Your task to perform on an android device: Open the map Image 0: 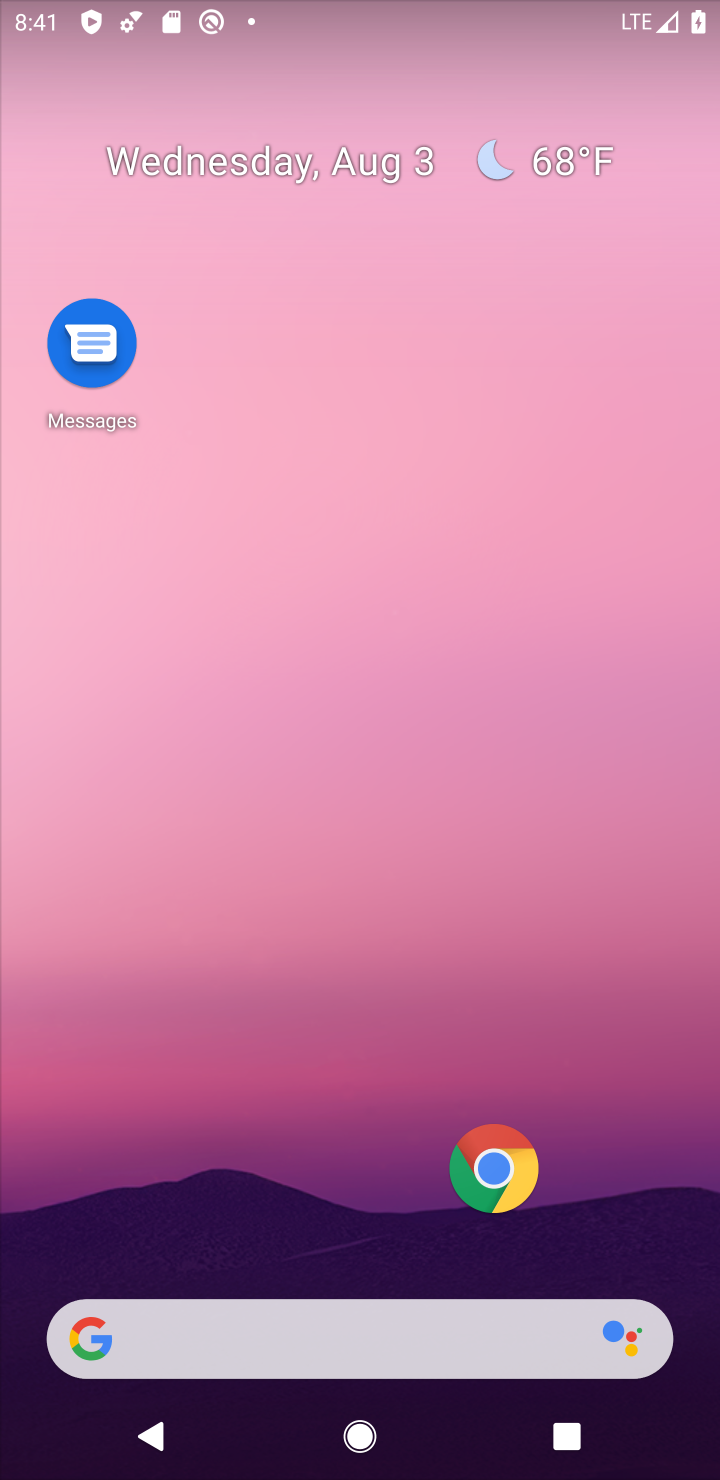
Step 0: drag from (387, 1231) to (606, 0)
Your task to perform on an android device: Open the map Image 1: 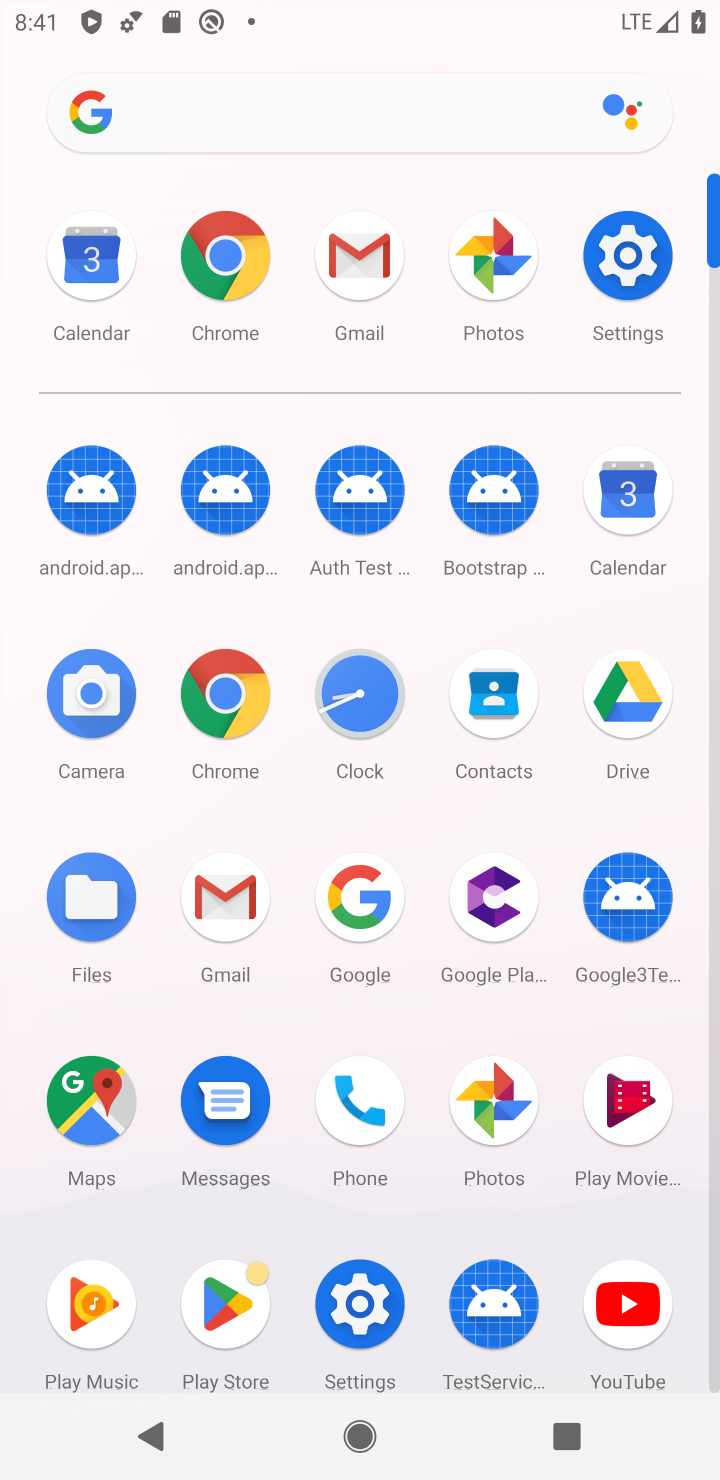
Step 1: click (74, 1109)
Your task to perform on an android device: Open the map Image 2: 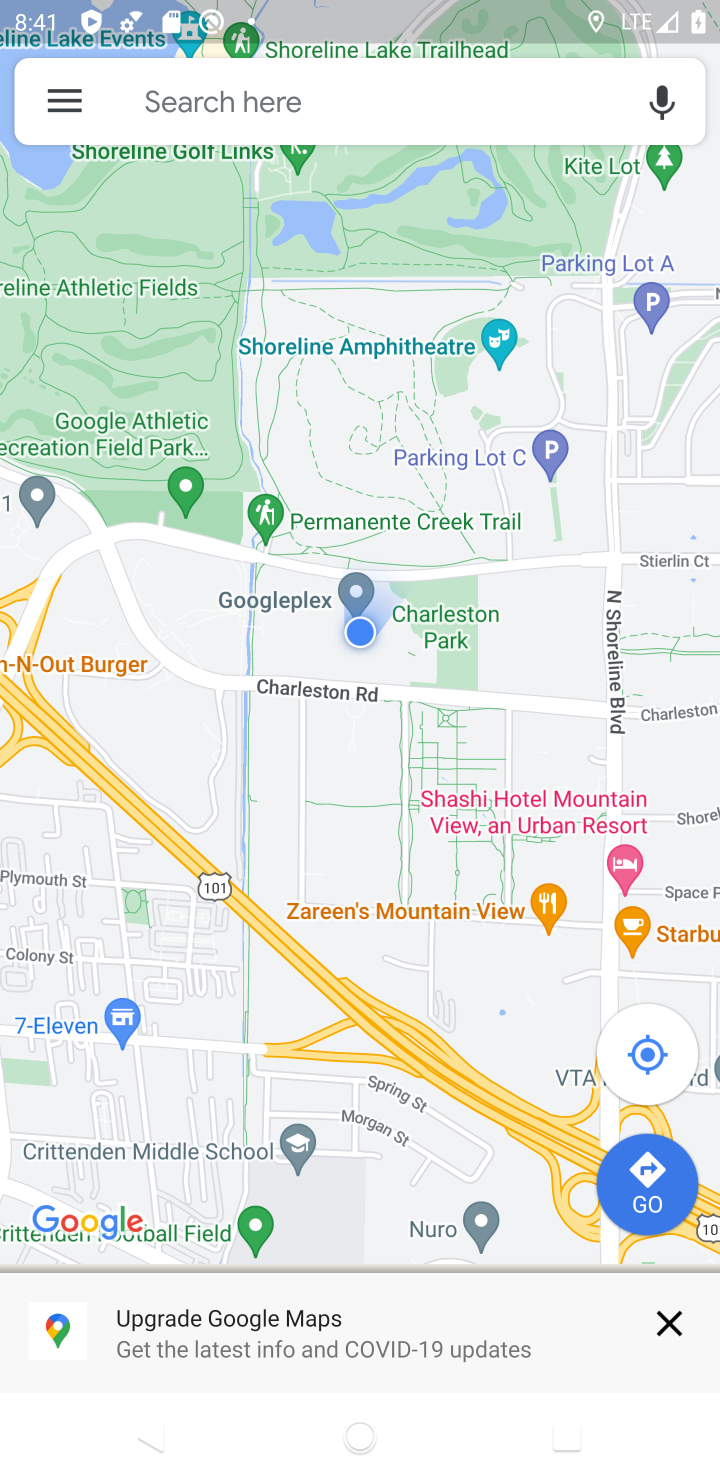
Step 2: task complete